Your task to perform on an android device: Go to Maps Image 0: 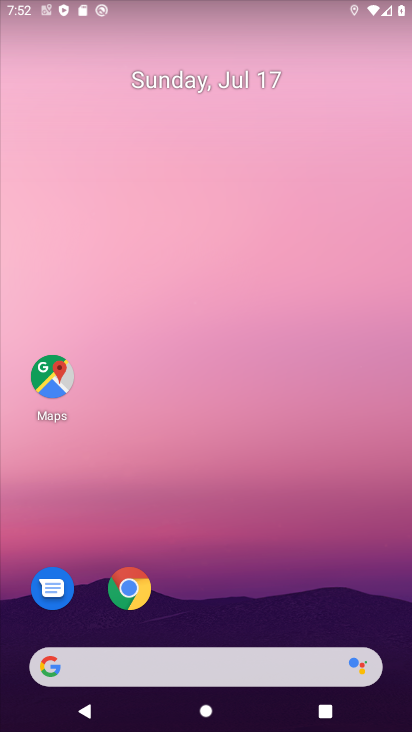
Step 0: drag from (239, 584) to (261, 212)
Your task to perform on an android device: Go to Maps Image 1: 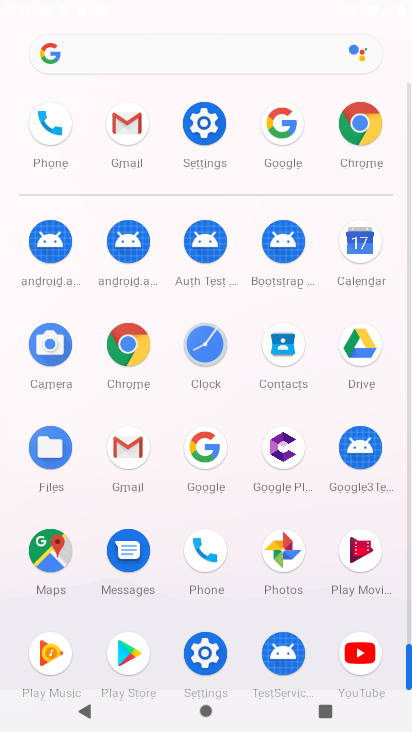
Step 1: drag from (251, 632) to (245, 216)
Your task to perform on an android device: Go to Maps Image 2: 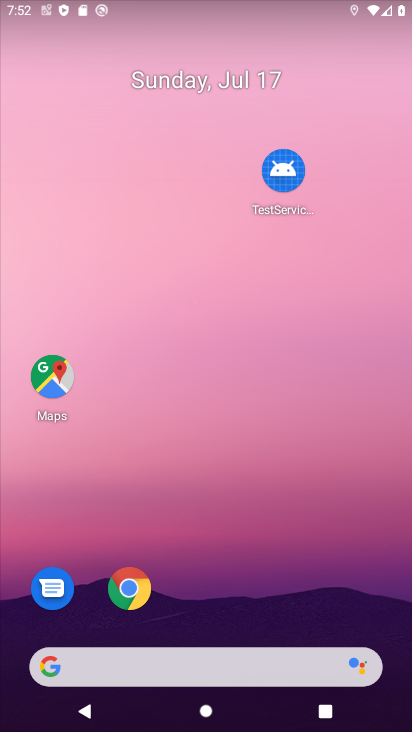
Step 2: drag from (197, 442) to (185, 133)
Your task to perform on an android device: Go to Maps Image 3: 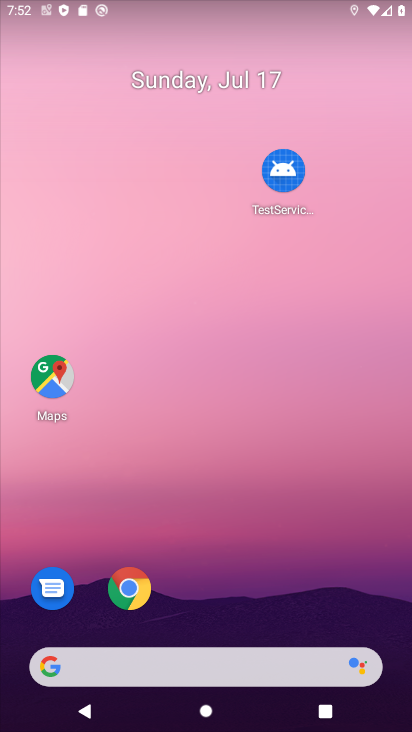
Step 3: click (62, 400)
Your task to perform on an android device: Go to Maps Image 4: 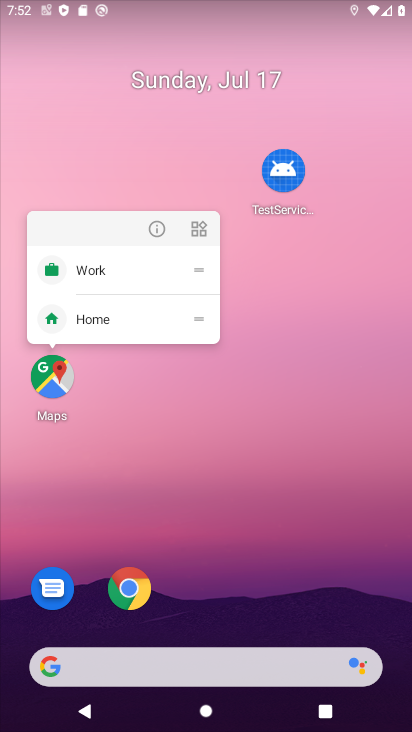
Step 4: click (62, 400)
Your task to perform on an android device: Go to Maps Image 5: 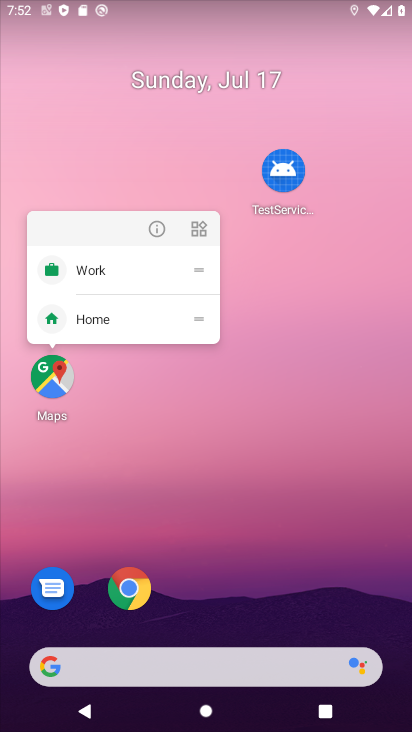
Step 5: click (62, 408)
Your task to perform on an android device: Go to Maps Image 6: 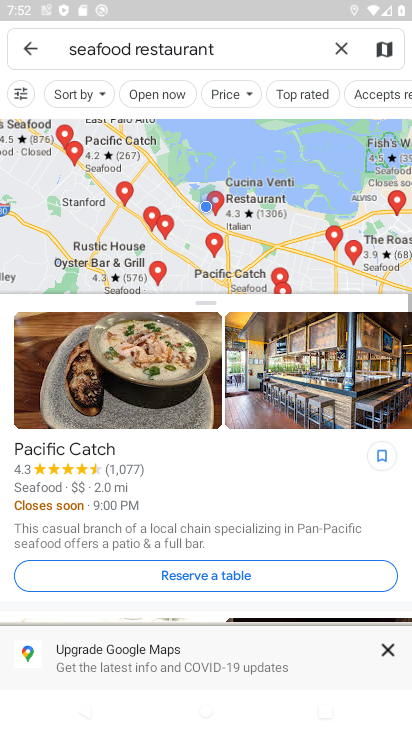
Step 6: task complete